Your task to perform on an android device: Empty the shopping cart on newegg.com. Add "apple airpods pro" to the cart on newegg.com, then select checkout. Image 0: 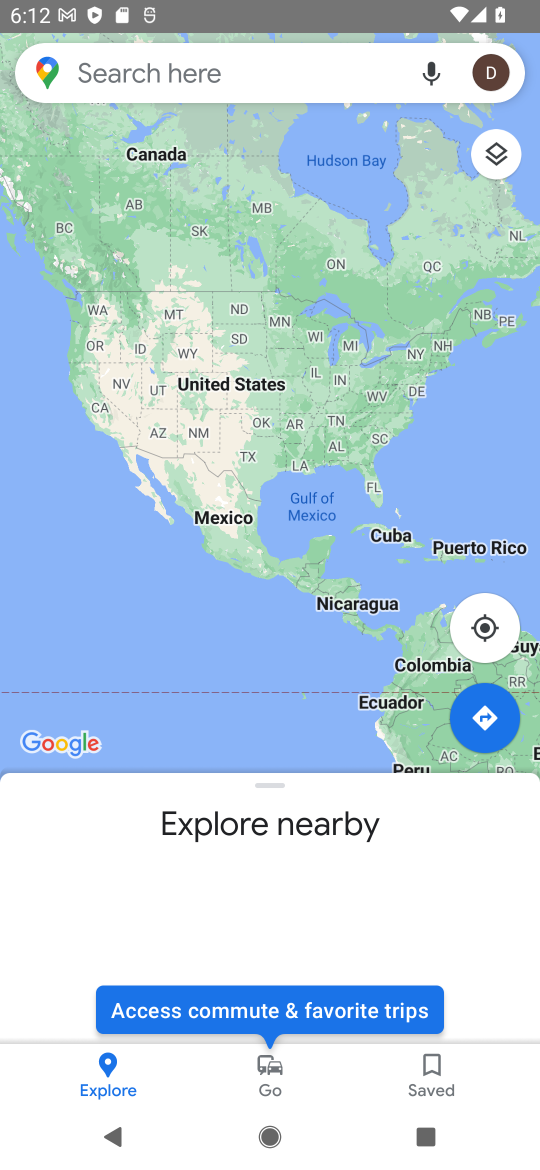
Step 0: press home button
Your task to perform on an android device: Empty the shopping cart on newegg.com. Add "apple airpods pro" to the cart on newegg.com, then select checkout. Image 1: 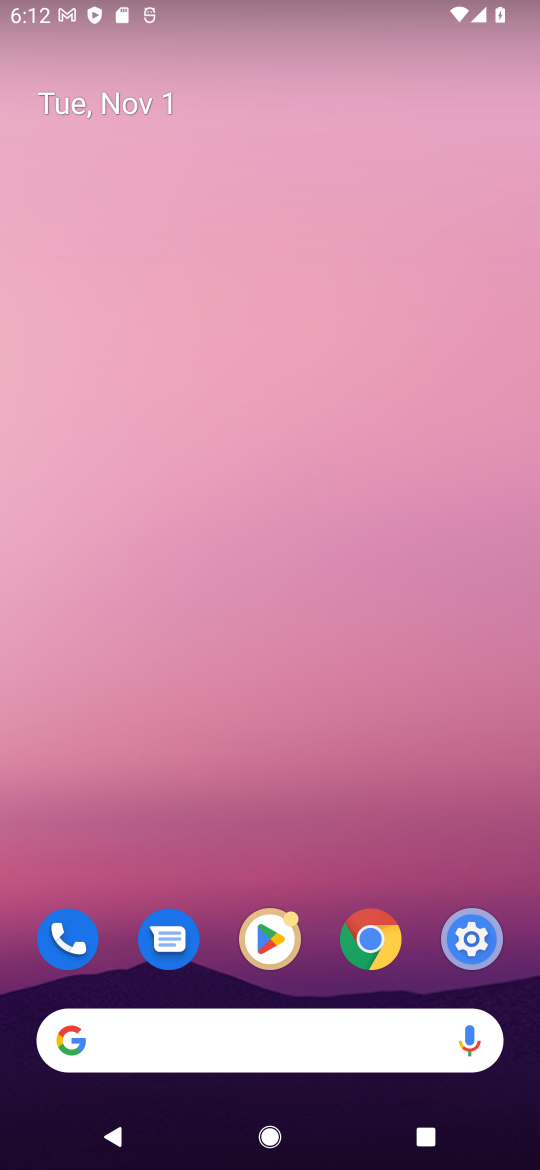
Step 1: drag from (241, 1028) to (163, 102)
Your task to perform on an android device: Empty the shopping cart on newegg.com. Add "apple airpods pro" to the cart on newegg.com, then select checkout. Image 2: 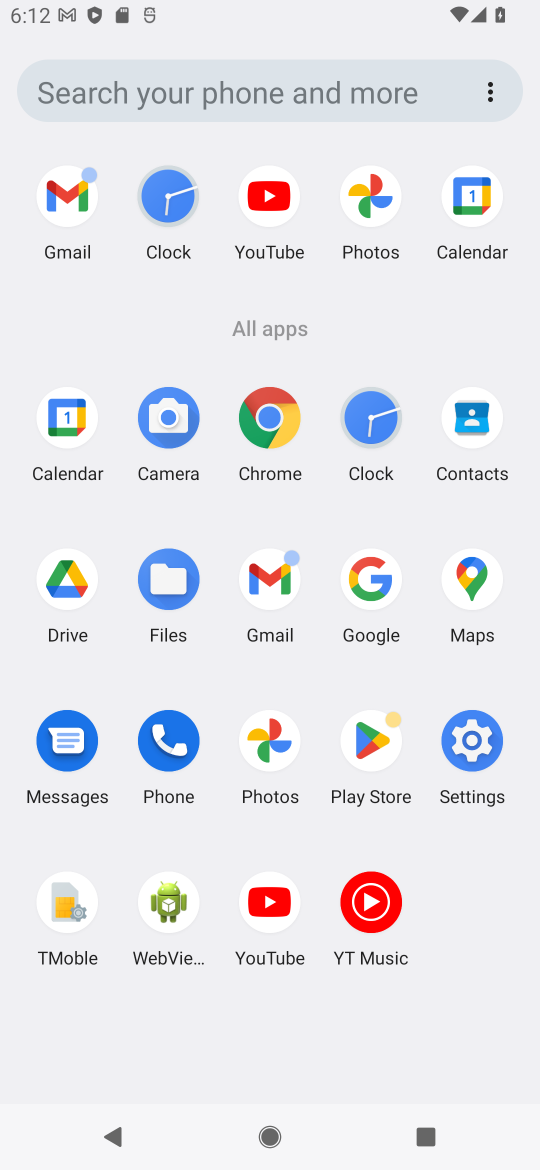
Step 2: click (270, 421)
Your task to perform on an android device: Empty the shopping cart on newegg.com. Add "apple airpods pro" to the cart on newegg.com, then select checkout. Image 3: 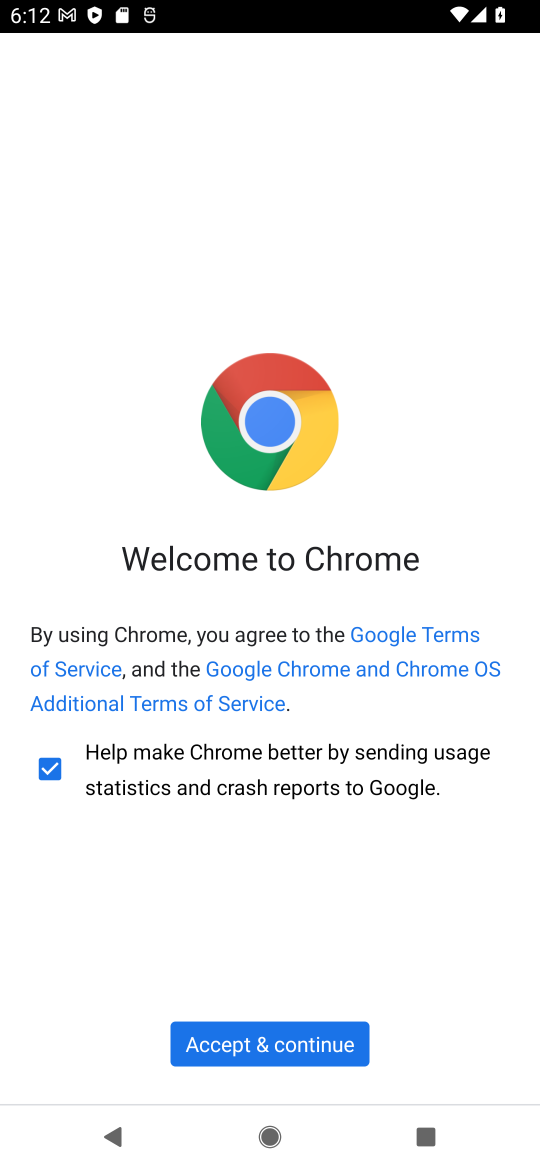
Step 3: click (301, 1050)
Your task to perform on an android device: Empty the shopping cart on newegg.com. Add "apple airpods pro" to the cart on newegg.com, then select checkout. Image 4: 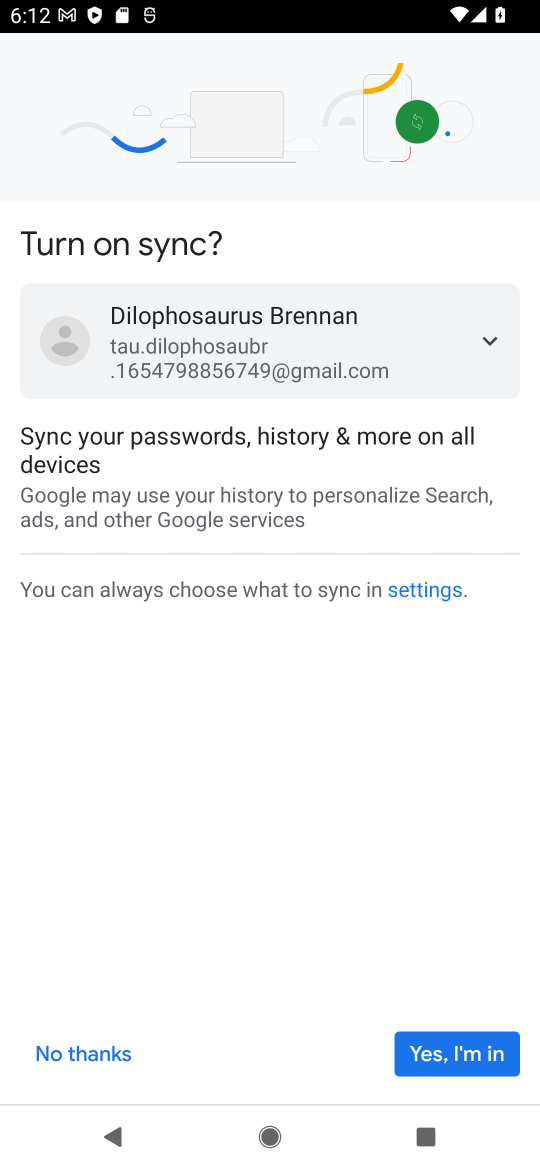
Step 4: click (455, 1058)
Your task to perform on an android device: Empty the shopping cart on newegg.com. Add "apple airpods pro" to the cart on newegg.com, then select checkout. Image 5: 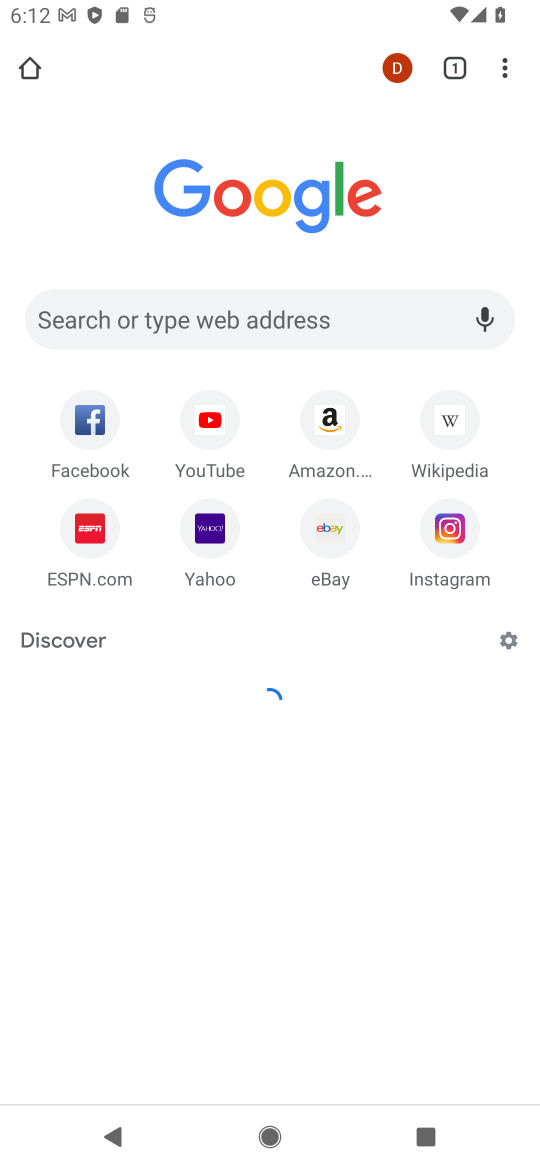
Step 5: click (288, 322)
Your task to perform on an android device: Empty the shopping cart on newegg.com. Add "apple airpods pro" to the cart on newegg.com, then select checkout. Image 6: 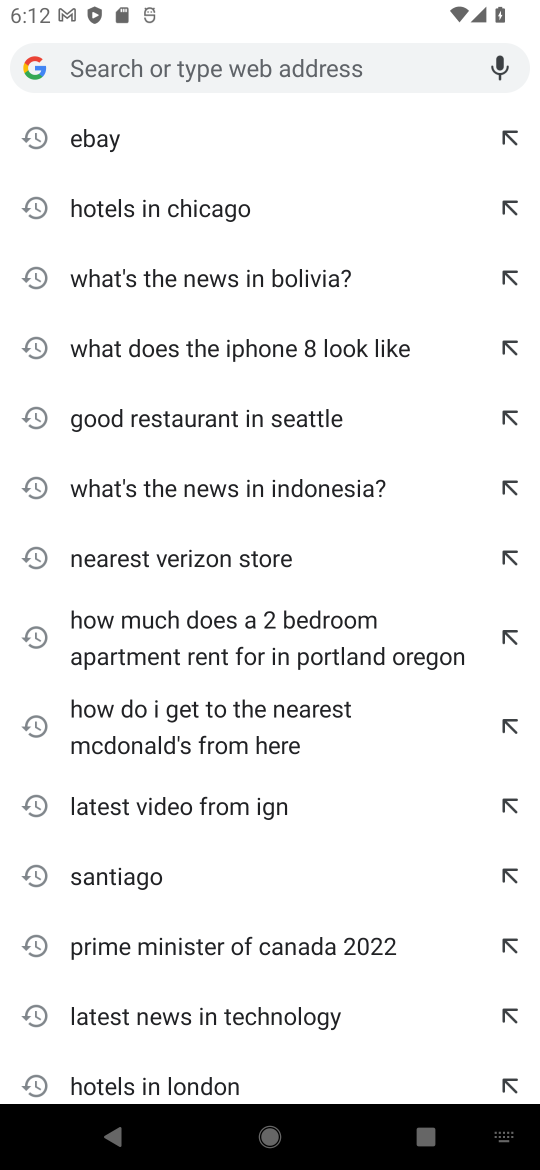
Step 6: type " newegg.com"
Your task to perform on an android device: Empty the shopping cart on newegg.com. Add "apple airpods pro" to the cart on newegg.com, then select checkout. Image 7: 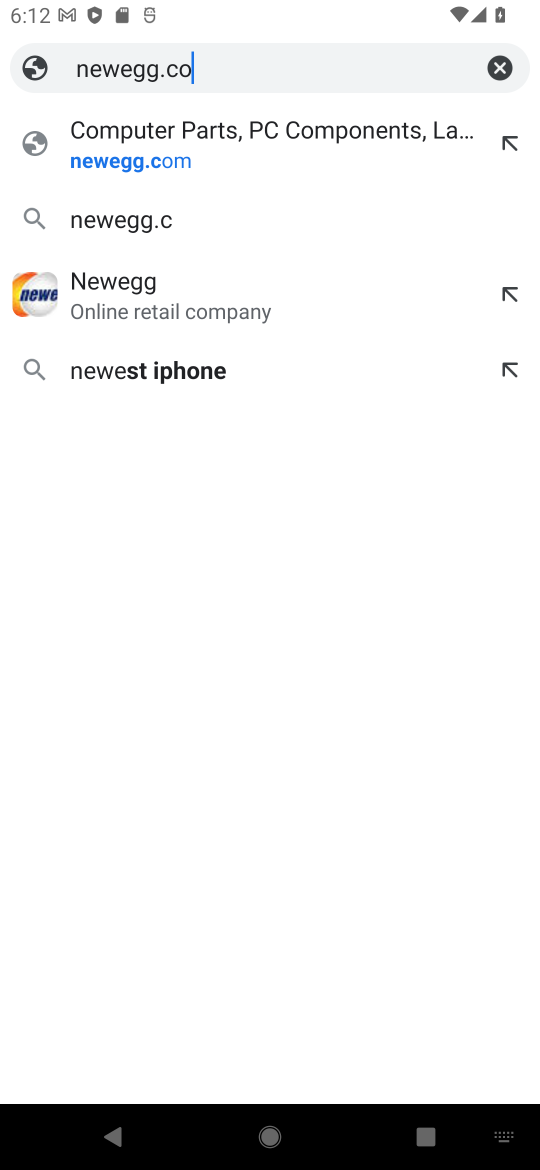
Step 7: press enter
Your task to perform on an android device: Empty the shopping cart on newegg.com. Add "apple airpods pro" to the cart on newegg.com, then select checkout. Image 8: 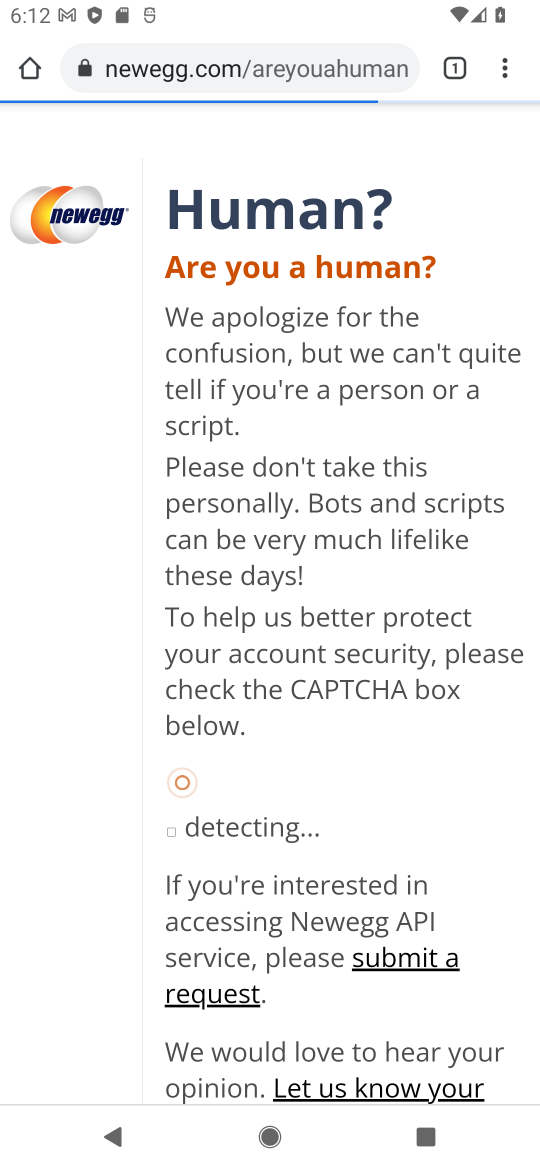
Step 8: click (106, 212)
Your task to perform on an android device: Empty the shopping cart on newegg.com. Add "apple airpods pro" to the cart on newegg.com, then select checkout. Image 9: 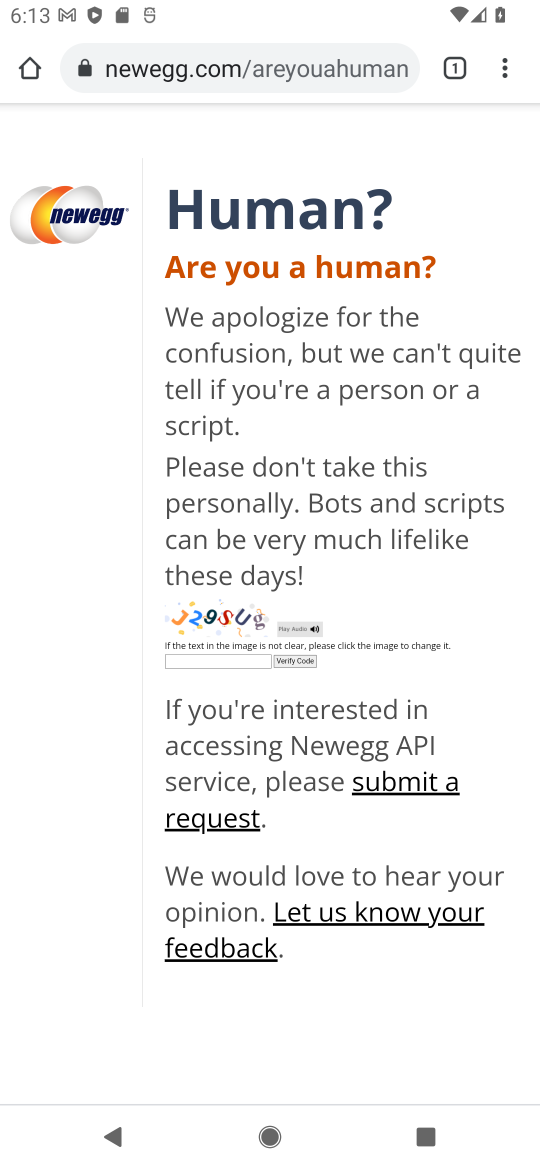
Step 9: task complete